Your task to perform on an android device: show emergency info Image 0: 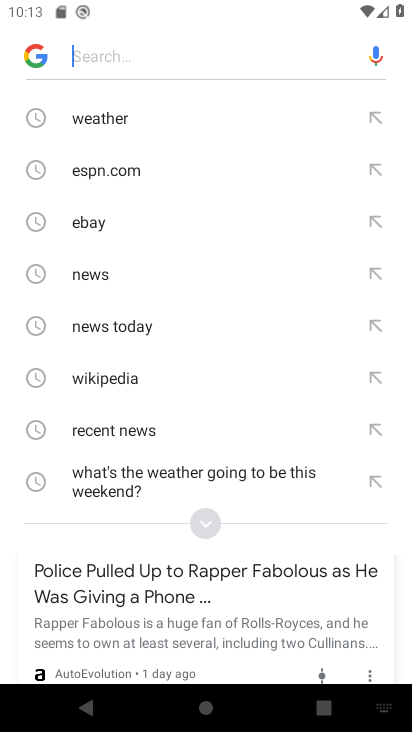
Step 0: drag from (191, 531) to (332, 123)
Your task to perform on an android device: show emergency info Image 1: 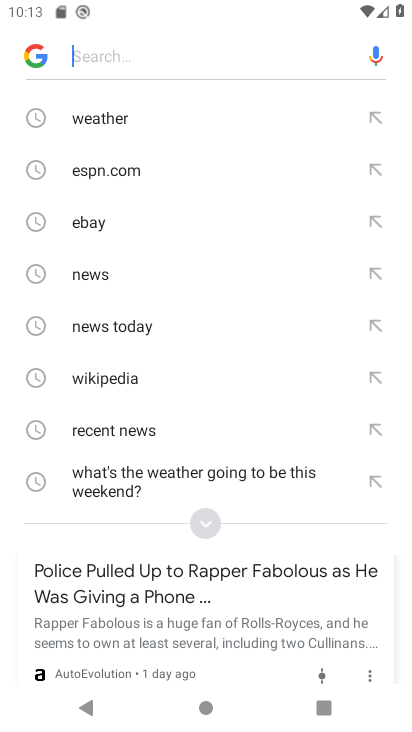
Step 1: drag from (126, 525) to (261, 177)
Your task to perform on an android device: show emergency info Image 2: 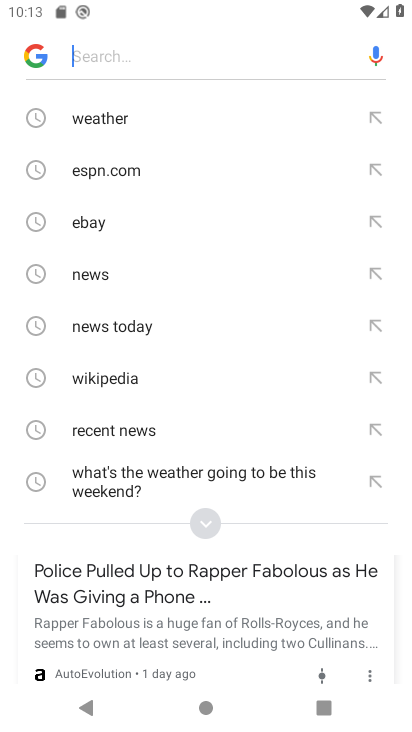
Step 2: press home button
Your task to perform on an android device: show emergency info Image 3: 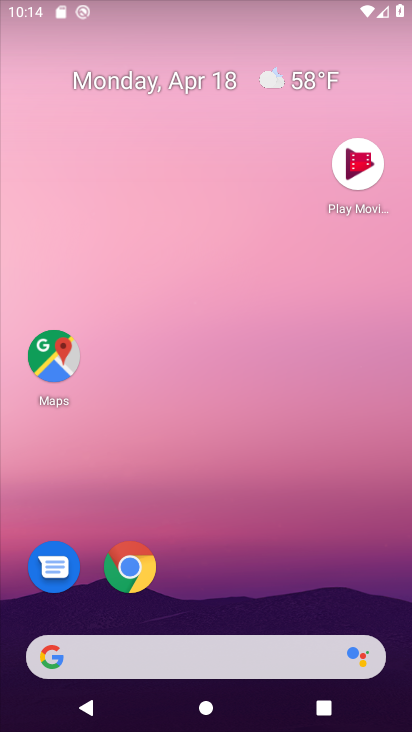
Step 3: drag from (221, 561) to (265, 147)
Your task to perform on an android device: show emergency info Image 4: 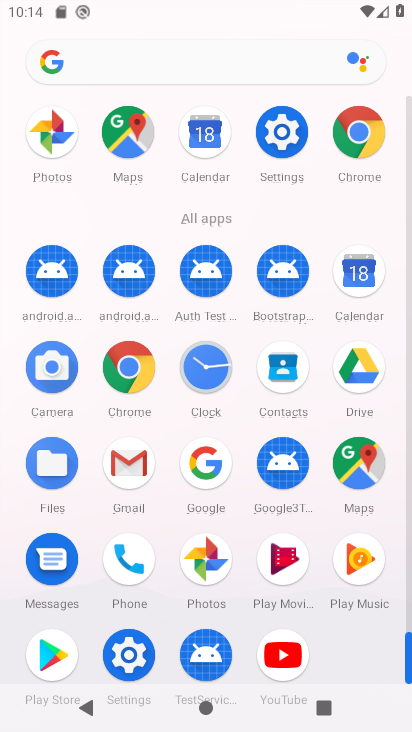
Step 4: click (128, 650)
Your task to perform on an android device: show emergency info Image 5: 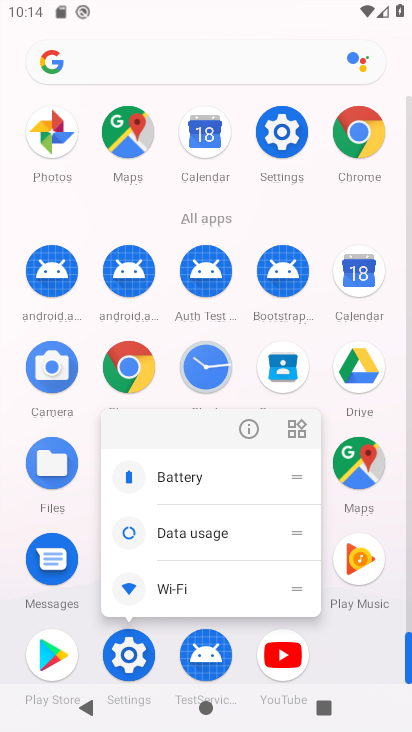
Step 5: click (243, 426)
Your task to perform on an android device: show emergency info Image 6: 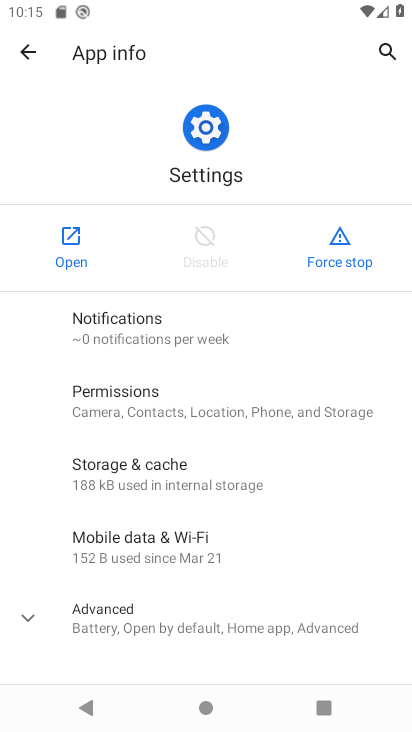
Step 6: click (60, 252)
Your task to perform on an android device: show emergency info Image 7: 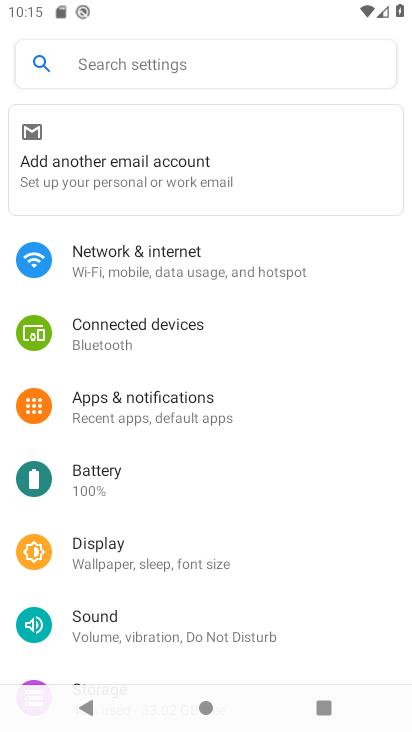
Step 7: drag from (240, 464) to (321, 145)
Your task to perform on an android device: show emergency info Image 8: 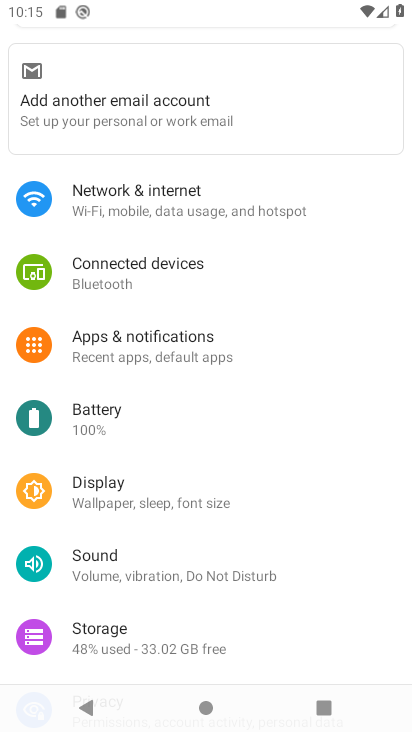
Step 8: drag from (161, 601) to (231, 242)
Your task to perform on an android device: show emergency info Image 9: 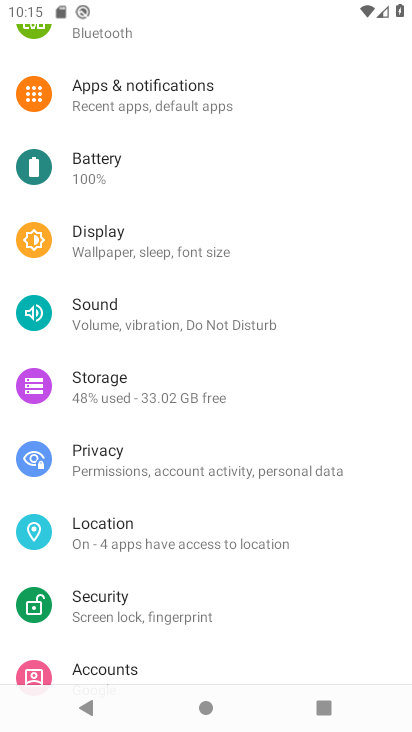
Step 9: drag from (166, 565) to (317, 64)
Your task to perform on an android device: show emergency info Image 10: 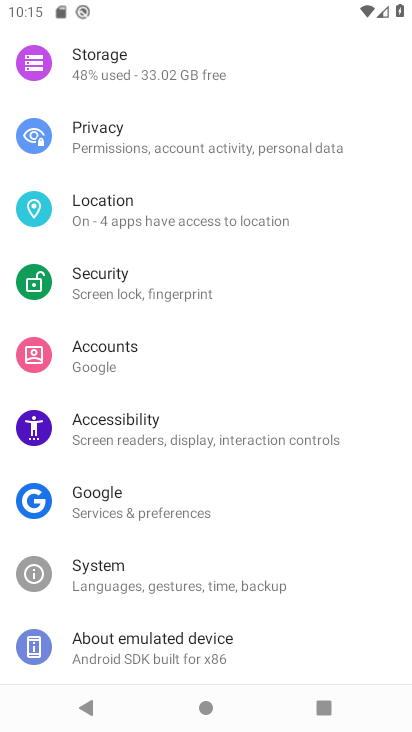
Step 10: click (149, 642)
Your task to perform on an android device: show emergency info Image 11: 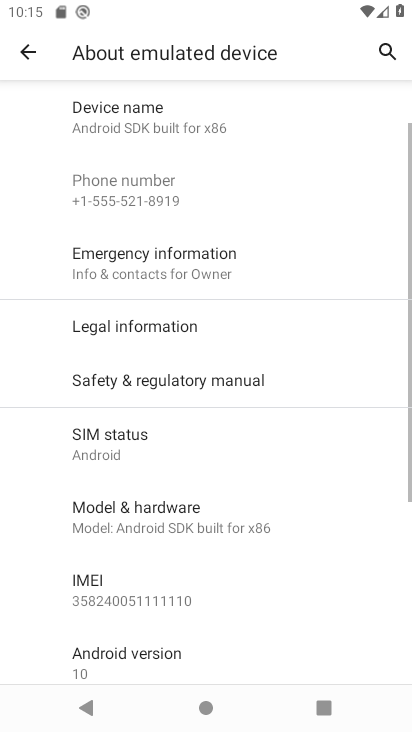
Step 11: click (179, 265)
Your task to perform on an android device: show emergency info Image 12: 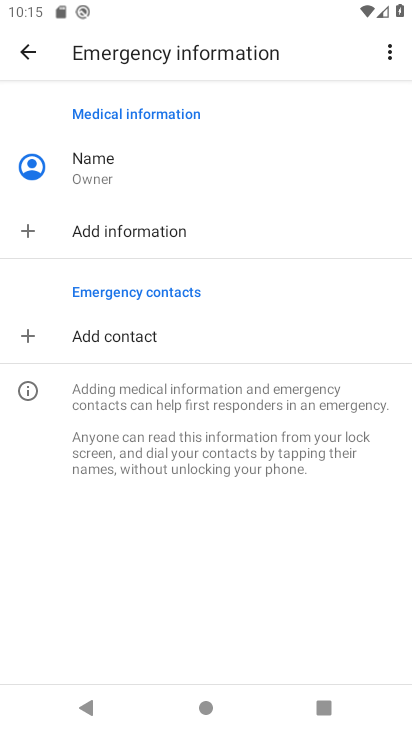
Step 12: task complete